Your task to perform on an android device: Go to settings Image 0: 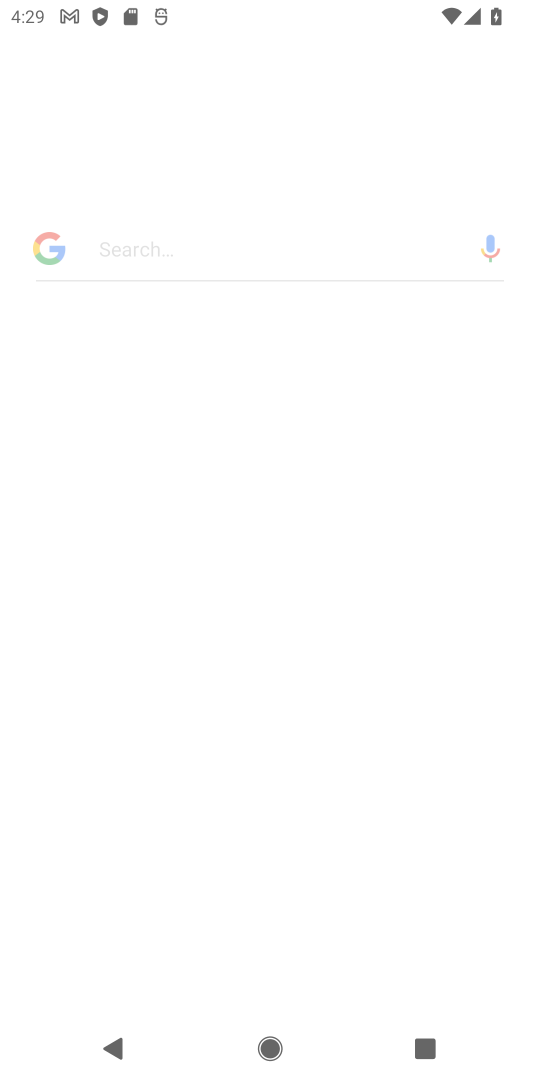
Step 0: press back button
Your task to perform on an android device: Go to settings Image 1: 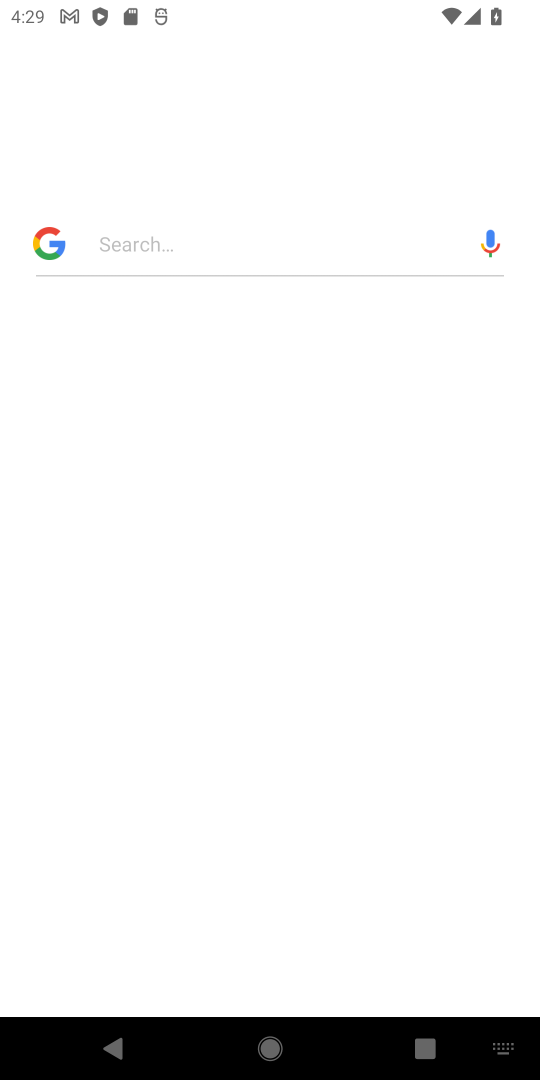
Step 1: press back button
Your task to perform on an android device: Go to settings Image 2: 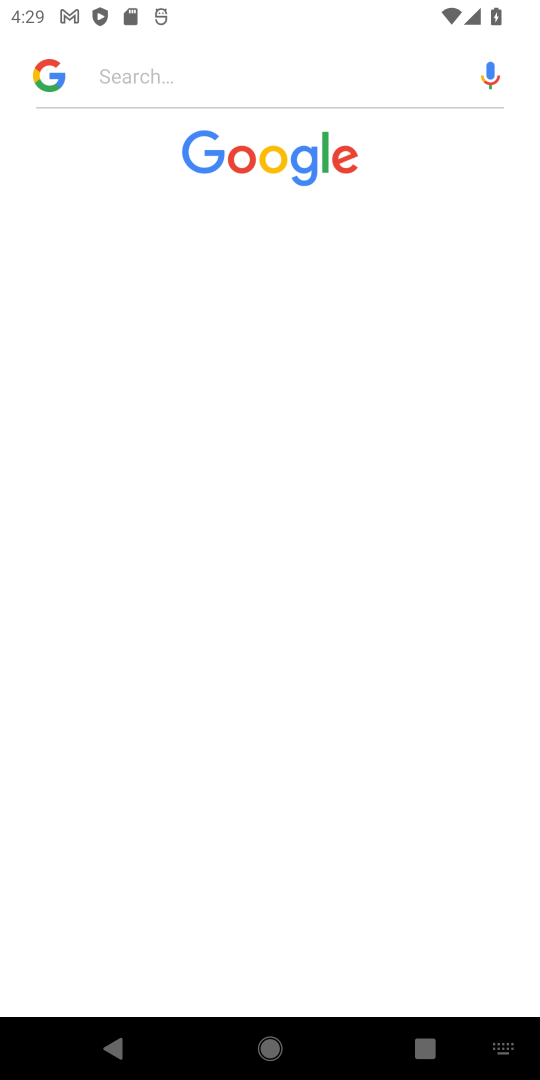
Step 2: press back button
Your task to perform on an android device: Go to settings Image 3: 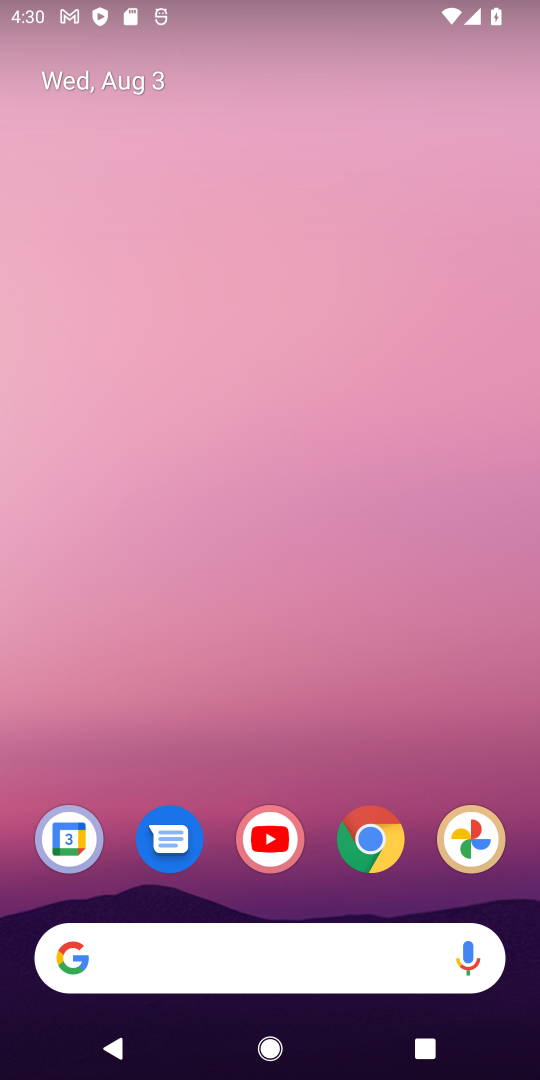
Step 3: drag from (255, 733) to (345, 2)
Your task to perform on an android device: Go to settings Image 4: 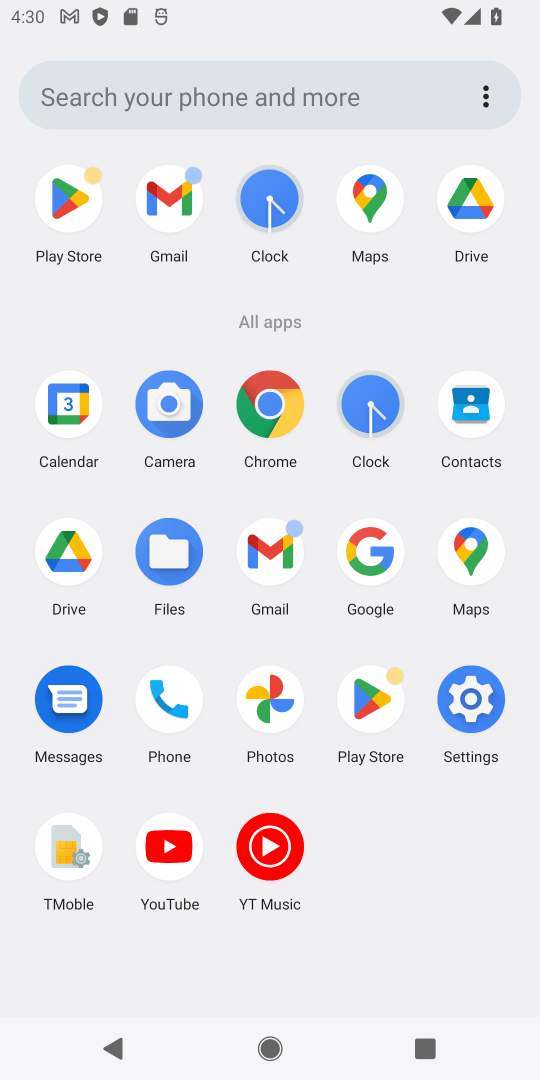
Step 4: click (471, 711)
Your task to perform on an android device: Go to settings Image 5: 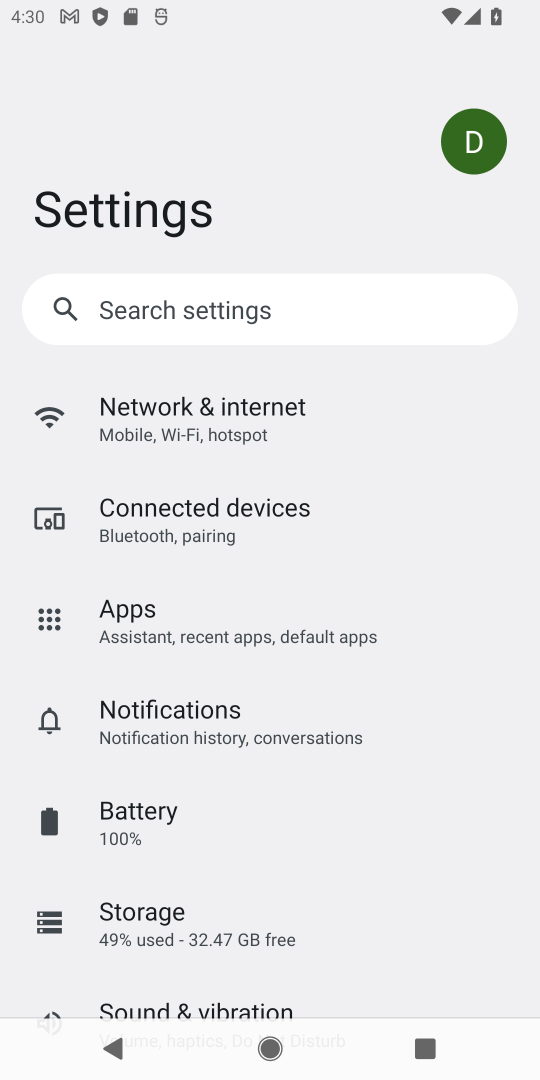
Step 5: task complete